Your task to perform on an android device: toggle data saver in the chrome app Image 0: 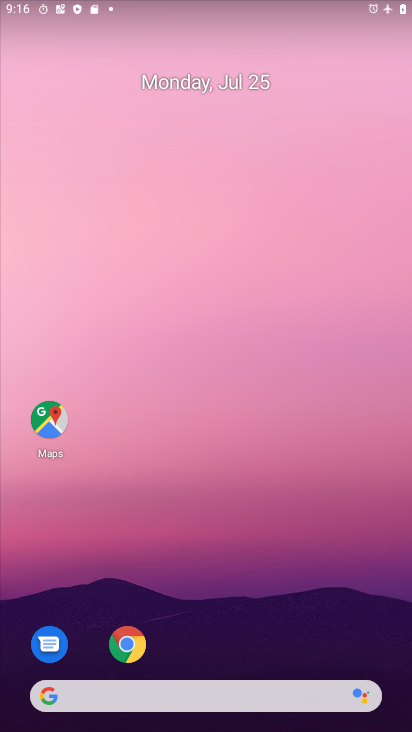
Step 0: drag from (211, 631) to (267, 100)
Your task to perform on an android device: toggle data saver in the chrome app Image 1: 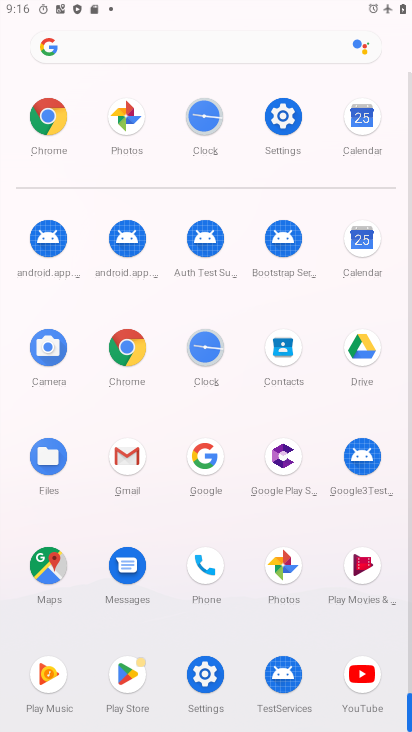
Step 1: click (136, 364)
Your task to perform on an android device: toggle data saver in the chrome app Image 2: 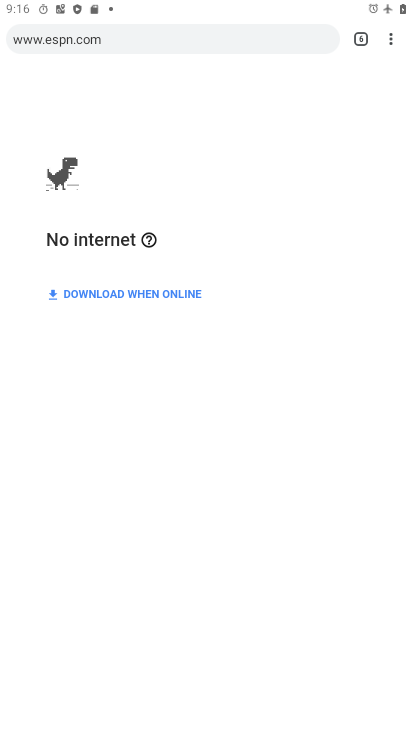
Step 2: click (395, 41)
Your task to perform on an android device: toggle data saver in the chrome app Image 3: 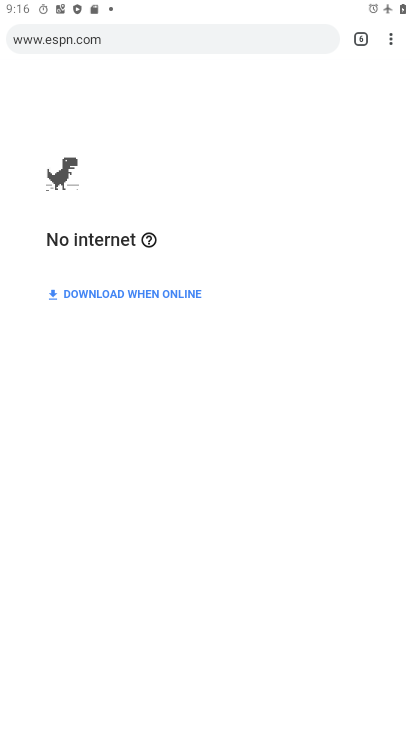
Step 3: click (387, 43)
Your task to perform on an android device: toggle data saver in the chrome app Image 4: 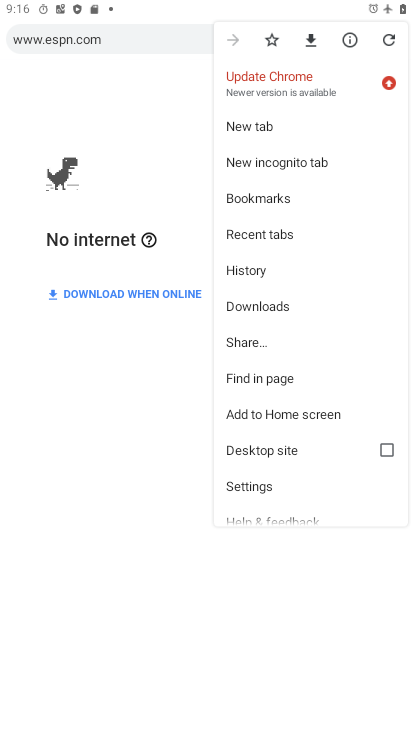
Step 4: click (259, 490)
Your task to perform on an android device: toggle data saver in the chrome app Image 5: 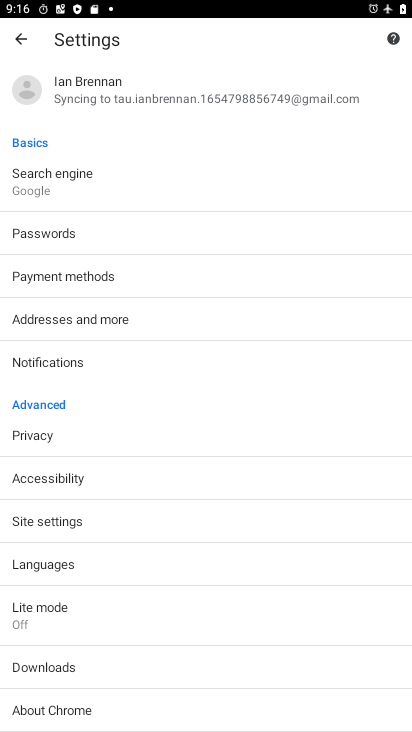
Step 5: click (80, 605)
Your task to perform on an android device: toggle data saver in the chrome app Image 6: 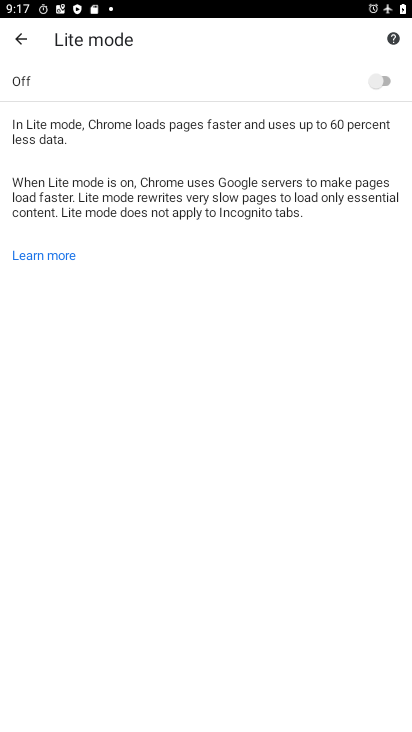
Step 6: click (367, 79)
Your task to perform on an android device: toggle data saver in the chrome app Image 7: 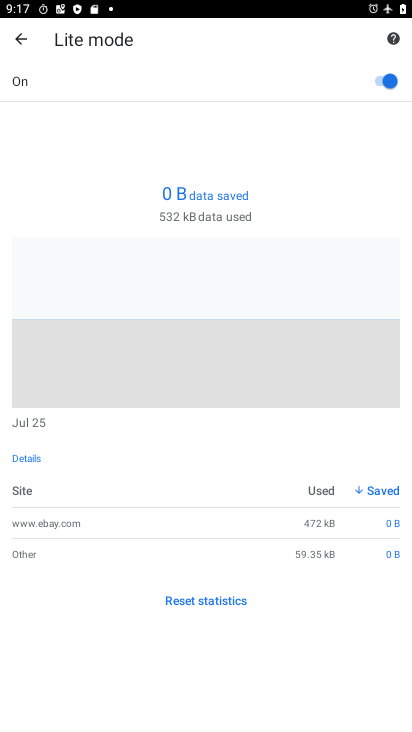
Step 7: task complete